Your task to perform on an android device: allow cookies in the chrome app Image 0: 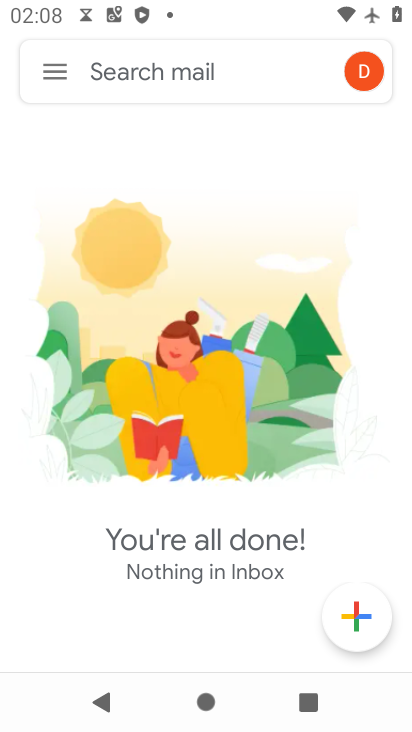
Step 0: press home button
Your task to perform on an android device: allow cookies in the chrome app Image 1: 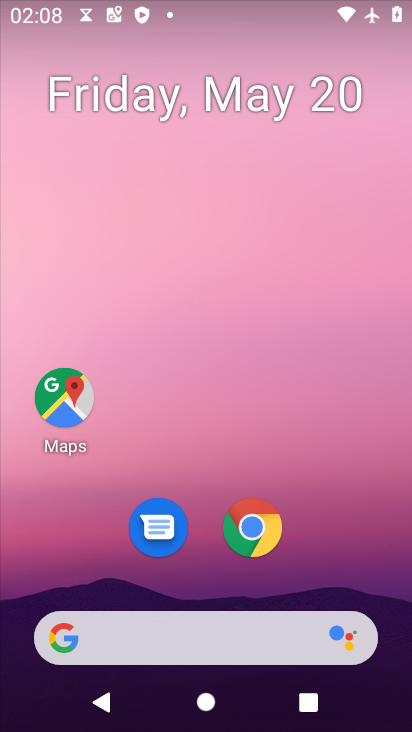
Step 1: click (250, 541)
Your task to perform on an android device: allow cookies in the chrome app Image 2: 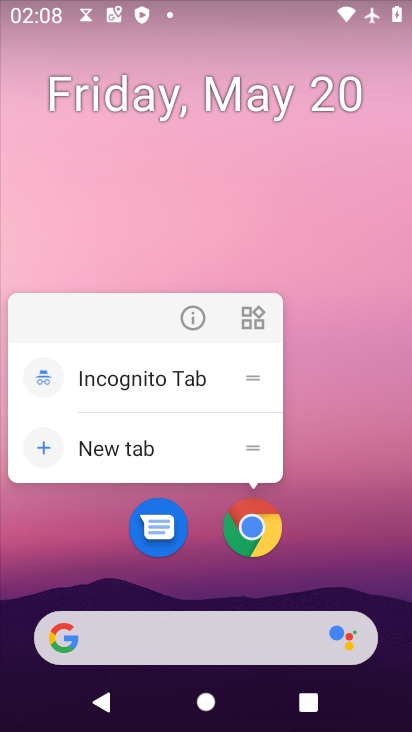
Step 2: click (253, 536)
Your task to perform on an android device: allow cookies in the chrome app Image 3: 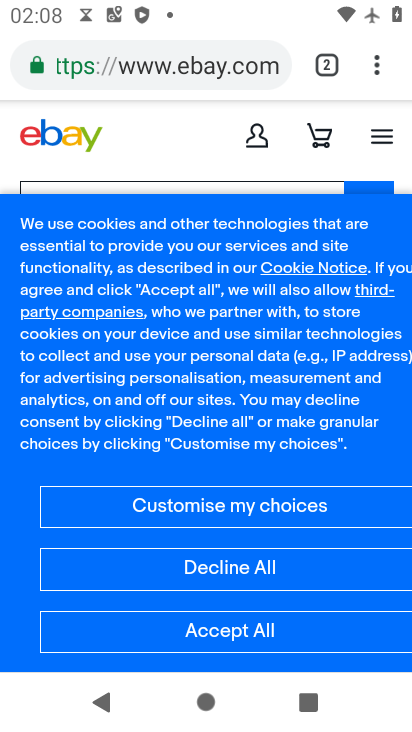
Step 3: drag from (376, 72) to (295, 569)
Your task to perform on an android device: allow cookies in the chrome app Image 4: 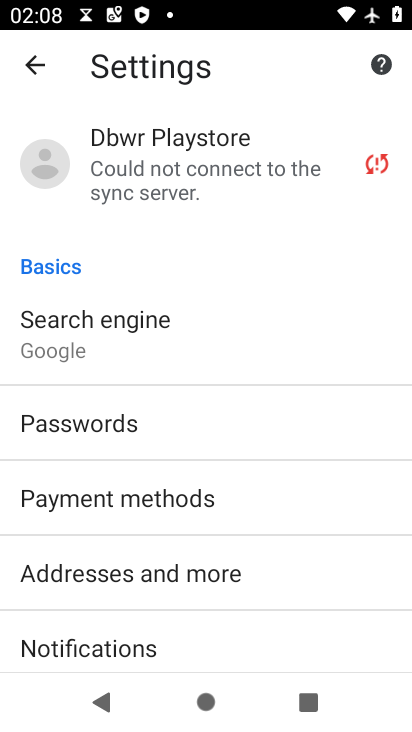
Step 4: drag from (290, 587) to (353, 194)
Your task to perform on an android device: allow cookies in the chrome app Image 5: 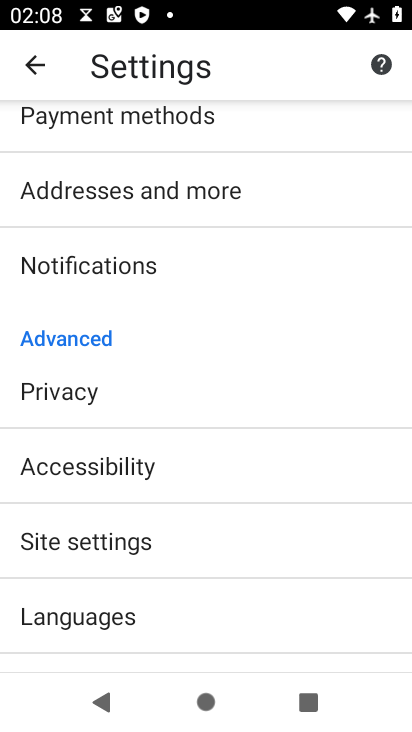
Step 5: click (121, 547)
Your task to perform on an android device: allow cookies in the chrome app Image 6: 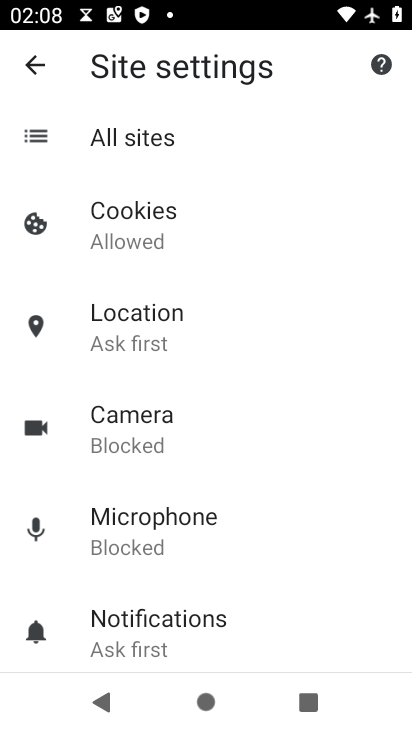
Step 6: click (164, 230)
Your task to perform on an android device: allow cookies in the chrome app Image 7: 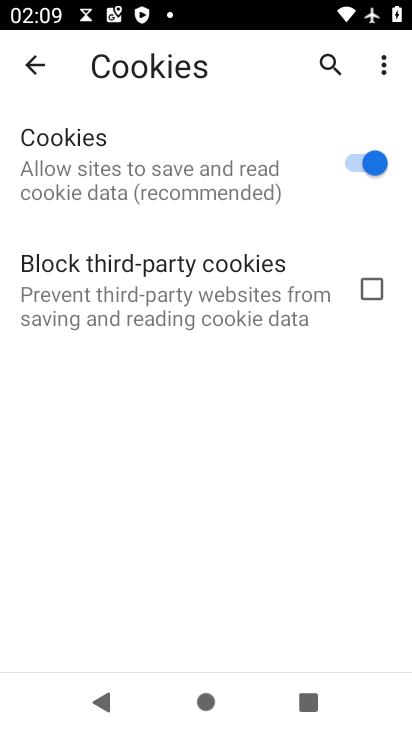
Step 7: task complete